Your task to perform on an android device: Open Amazon Image 0: 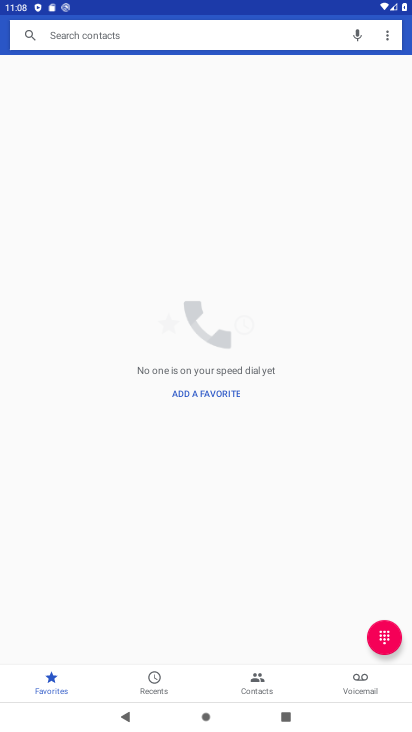
Step 0: press home button
Your task to perform on an android device: Open Amazon Image 1: 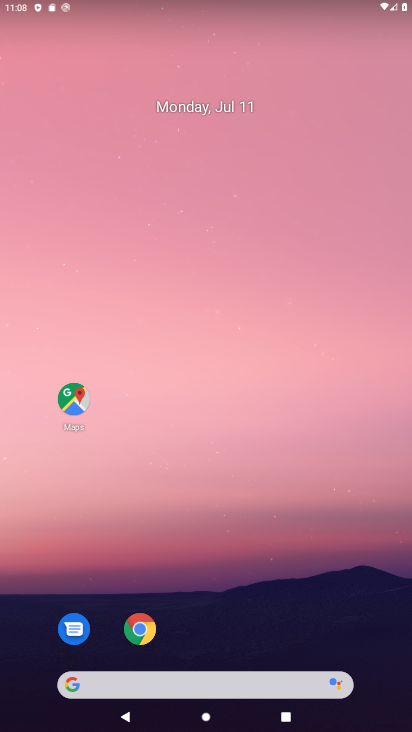
Step 1: click (134, 637)
Your task to perform on an android device: Open Amazon Image 2: 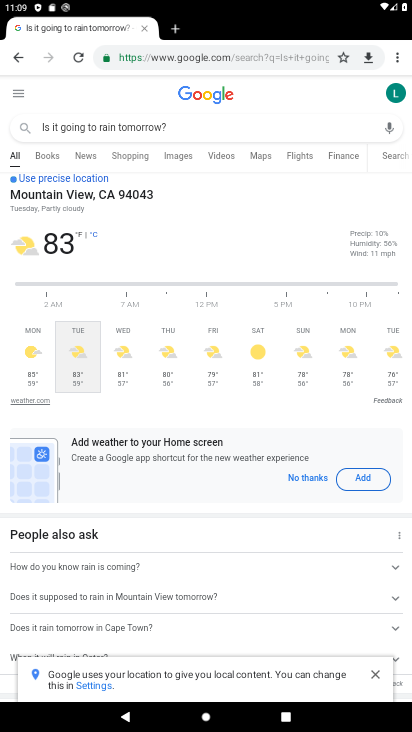
Step 2: click (259, 63)
Your task to perform on an android device: Open Amazon Image 3: 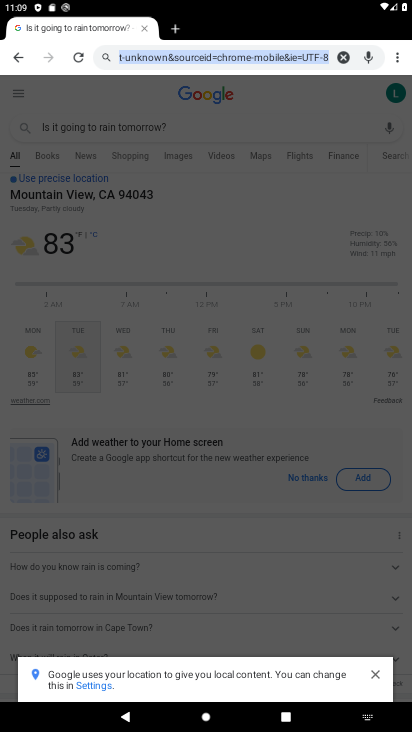
Step 3: click (343, 64)
Your task to perform on an android device: Open Amazon Image 4: 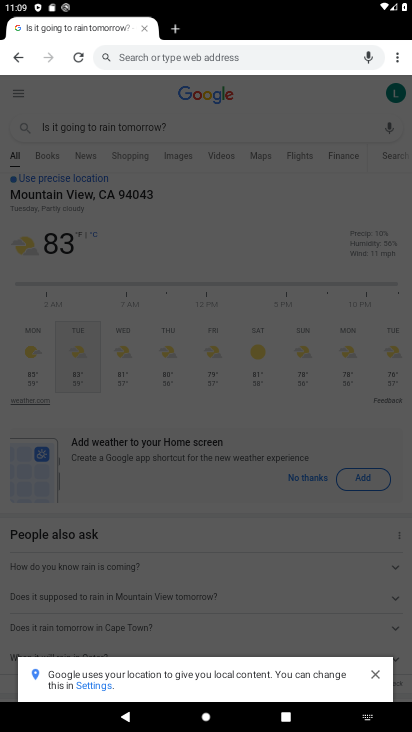
Step 4: click (126, 148)
Your task to perform on an android device: Open Amazon Image 5: 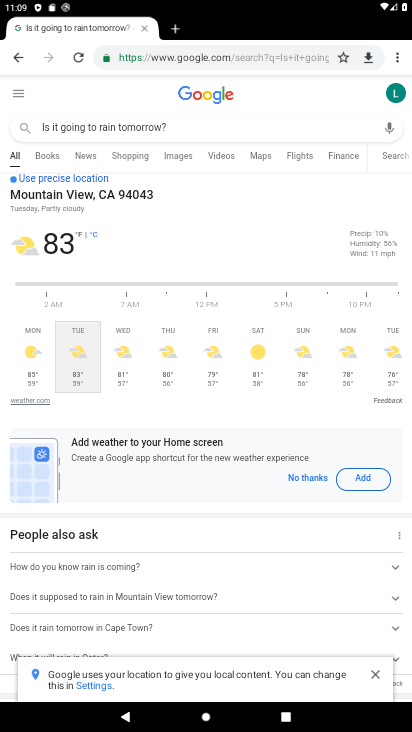
Step 5: drag from (392, 57) to (282, 98)
Your task to perform on an android device: Open Amazon Image 6: 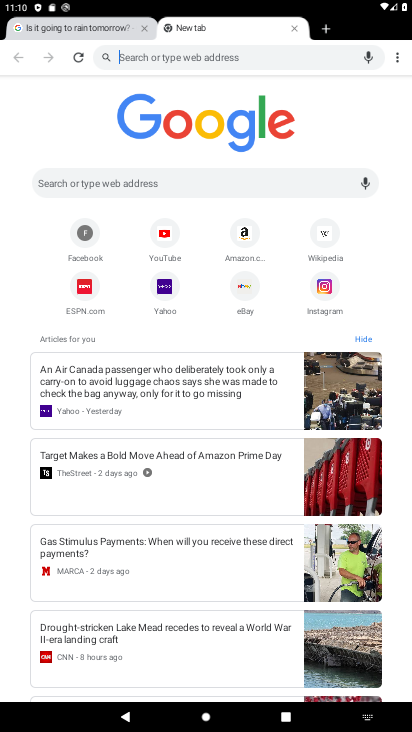
Step 6: click (237, 51)
Your task to perform on an android device: Open Amazon Image 7: 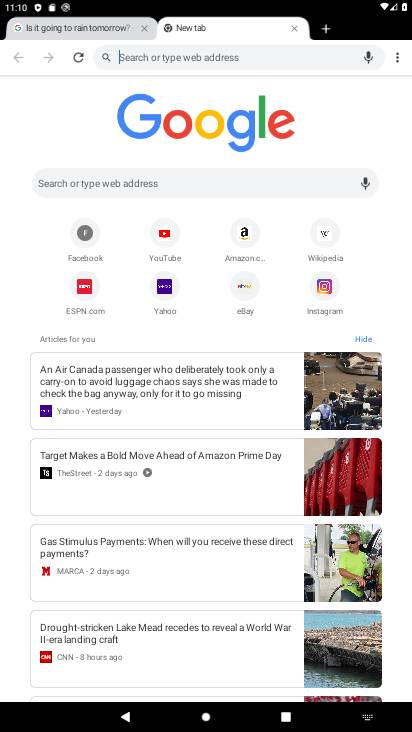
Step 7: click (243, 238)
Your task to perform on an android device: Open Amazon Image 8: 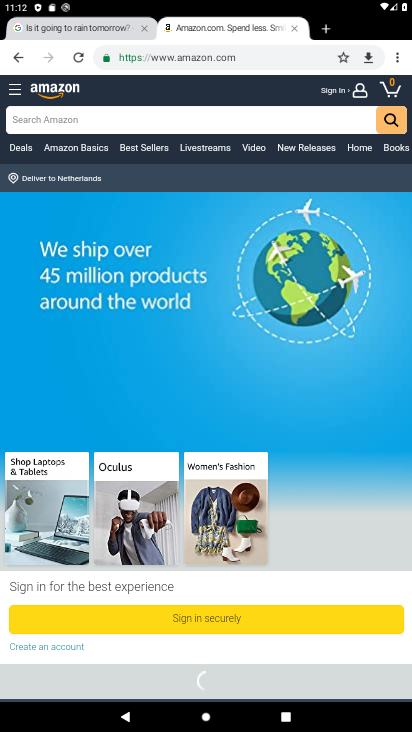
Step 8: task complete